Your task to perform on an android device: See recent photos Image 0: 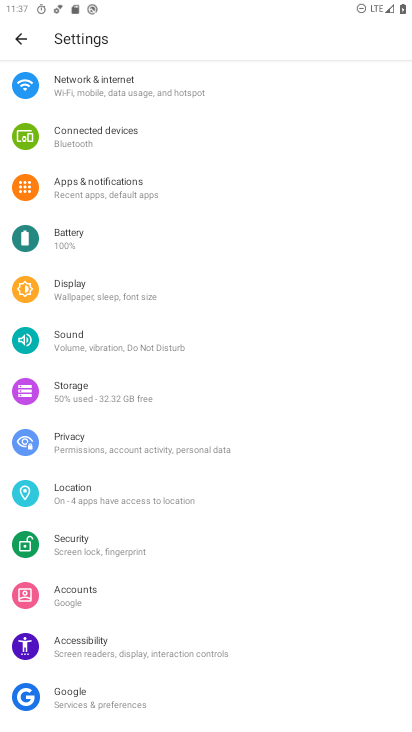
Step 0: press home button
Your task to perform on an android device: See recent photos Image 1: 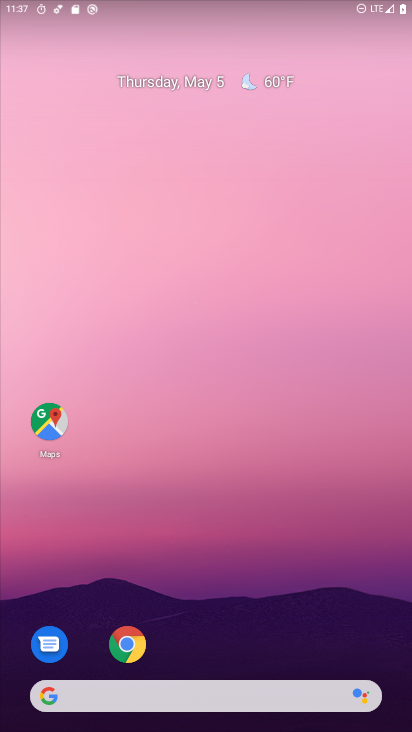
Step 1: drag from (372, 631) to (315, 106)
Your task to perform on an android device: See recent photos Image 2: 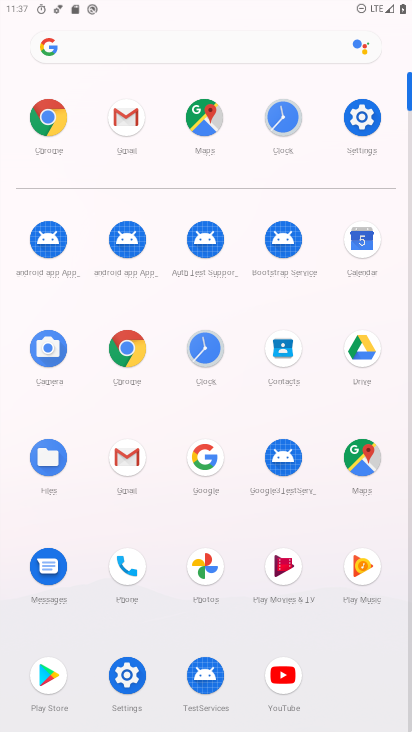
Step 2: click (207, 569)
Your task to perform on an android device: See recent photos Image 3: 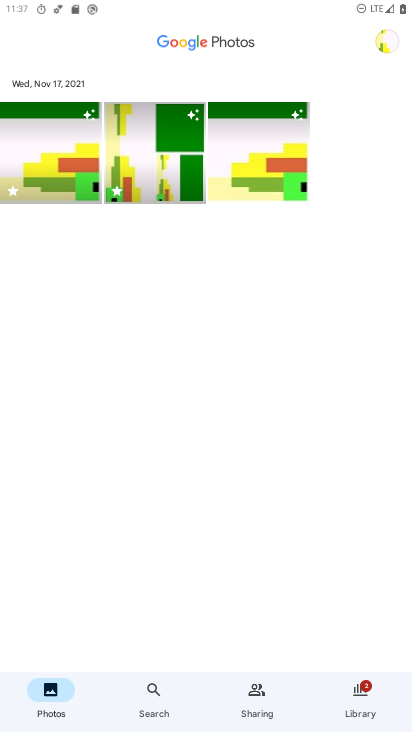
Step 3: task complete